Your task to perform on an android device: turn off location history Image 0: 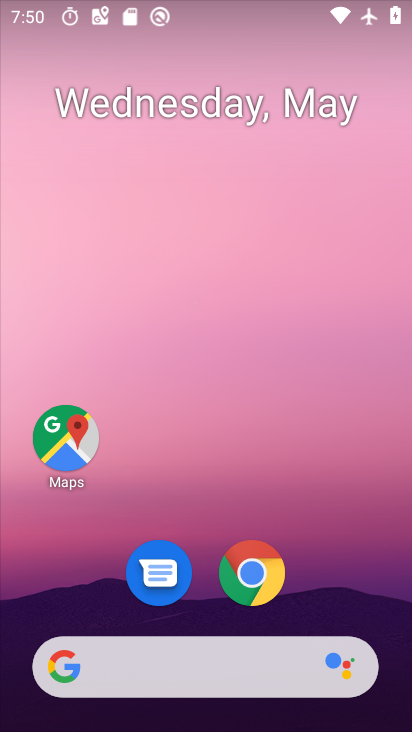
Step 0: drag from (307, 594) to (273, 35)
Your task to perform on an android device: turn off location history Image 1: 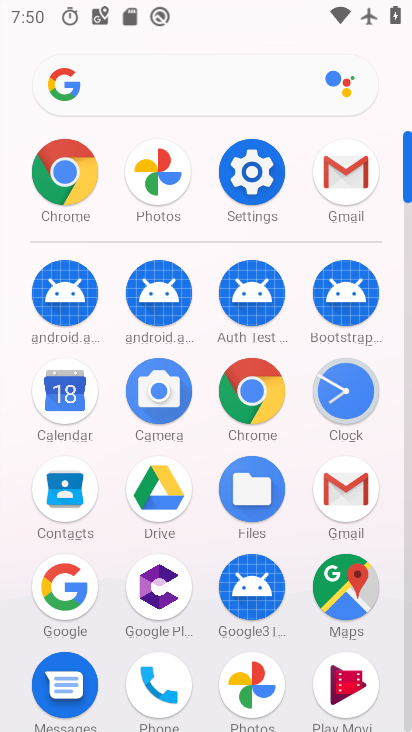
Step 1: click (240, 172)
Your task to perform on an android device: turn off location history Image 2: 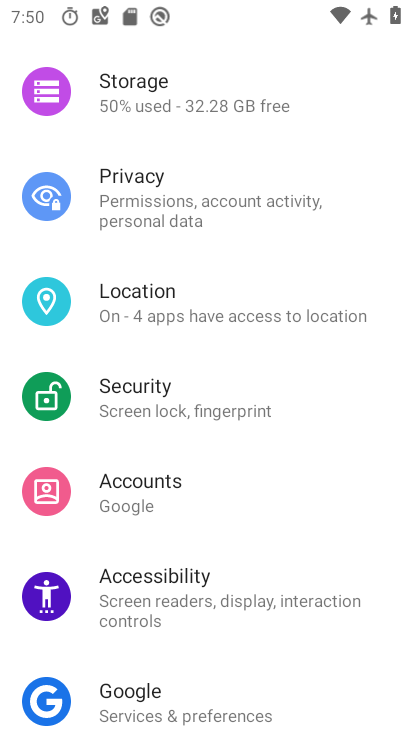
Step 2: click (144, 317)
Your task to perform on an android device: turn off location history Image 3: 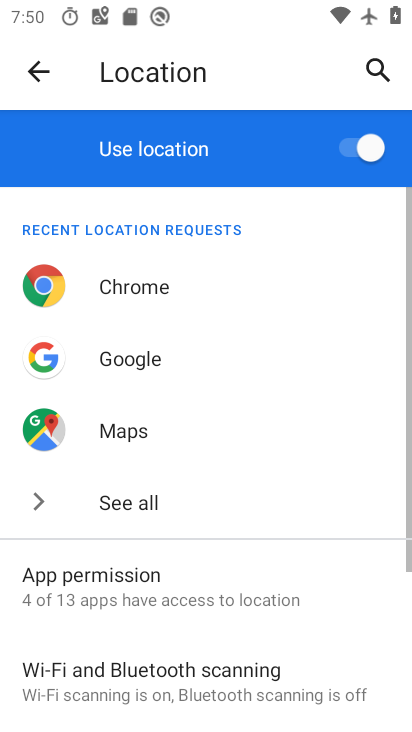
Step 3: drag from (221, 599) to (246, 296)
Your task to perform on an android device: turn off location history Image 4: 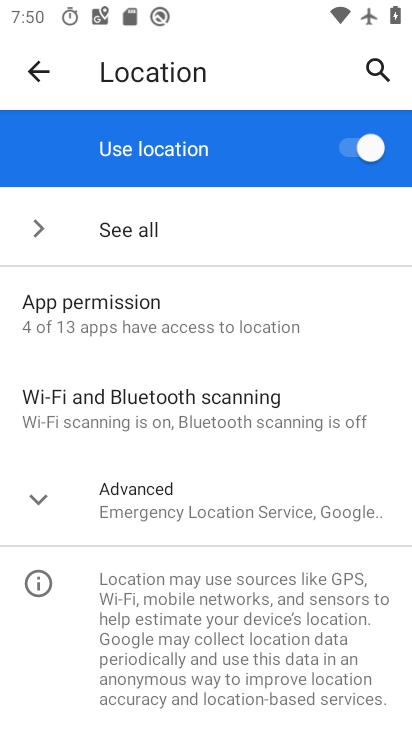
Step 4: click (190, 508)
Your task to perform on an android device: turn off location history Image 5: 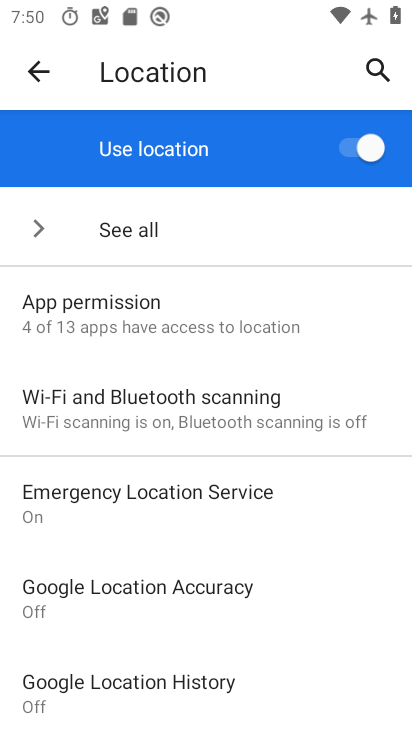
Step 5: click (192, 701)
Your task to perform on an android device: turn off location history Image 6: 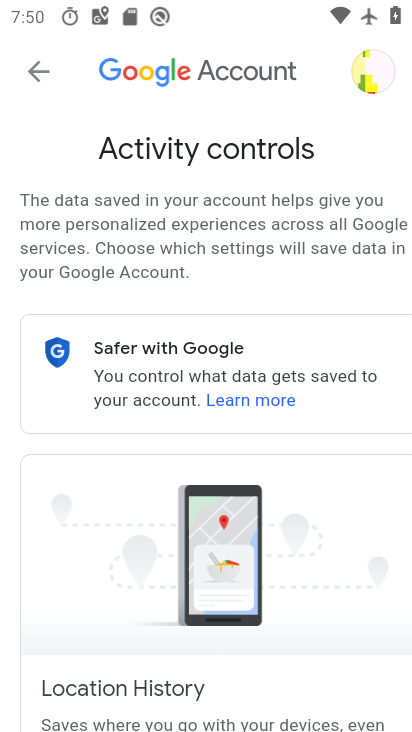
Step 6: drag from (254, 634) to (220, 119)
Your task to perform on an android device: turn off location history Image 7: 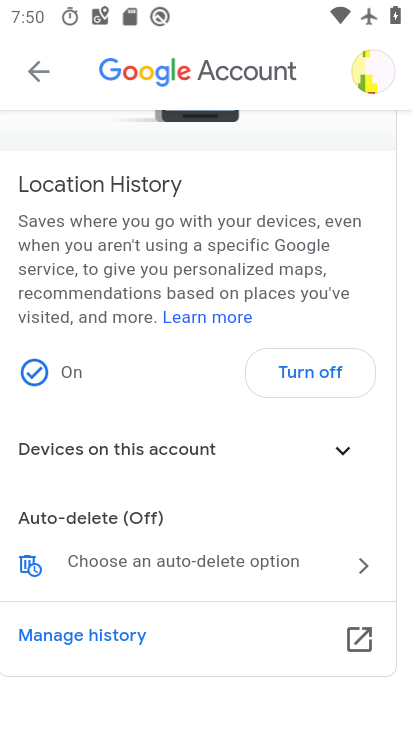
Step 7: click (305, 367)
Your task to perform on an android device: turn off location history Image 8: 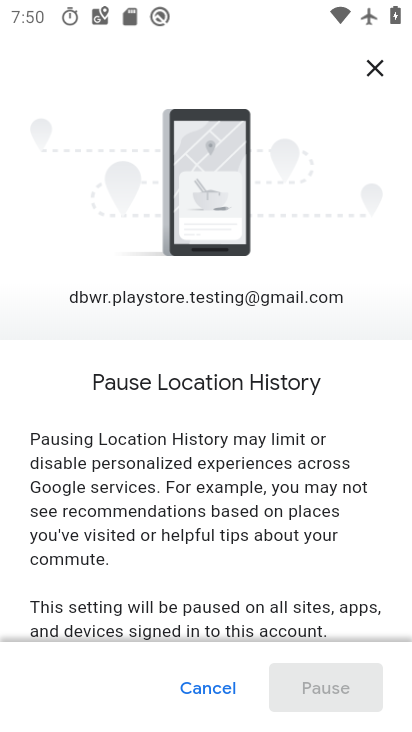
Step 8: drag from (296, 535) to (288, 104)
Your task to perform on an android device: turn off location history Image 9: 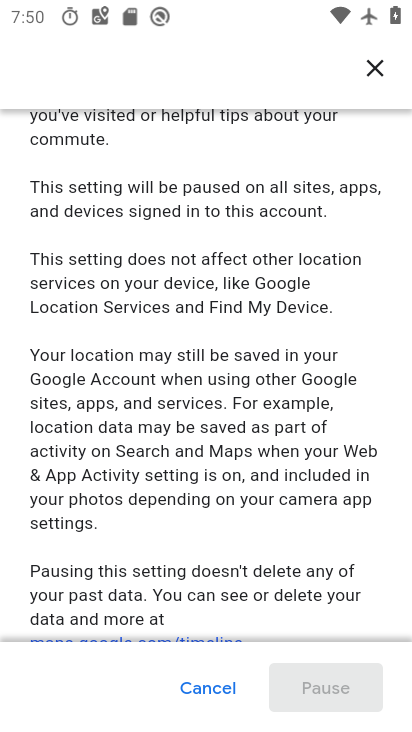
Step 9: drag from (335, 518) to (286, 204)
Your task to perform on an android device: turn off location history Image 10: 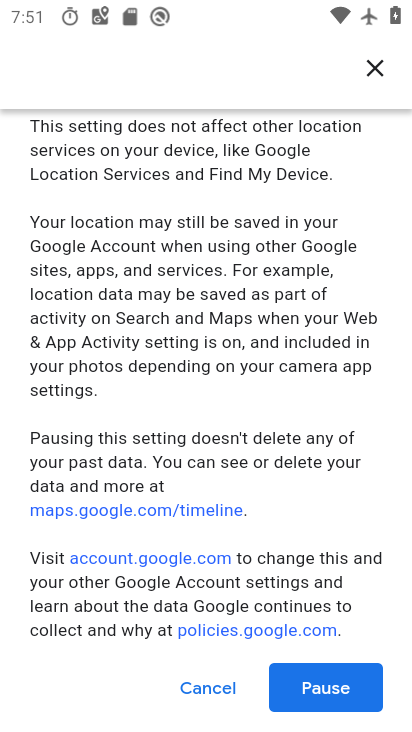
Step 10: click (318, 677)
Your task to perform on an android device: turn off location history Image 11: 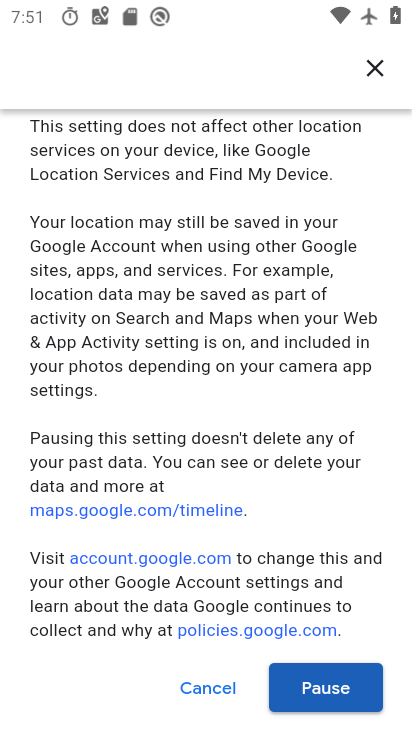
Step 11: click (322, 682)
Your task to perform on an android device: turn off location history Image 12: 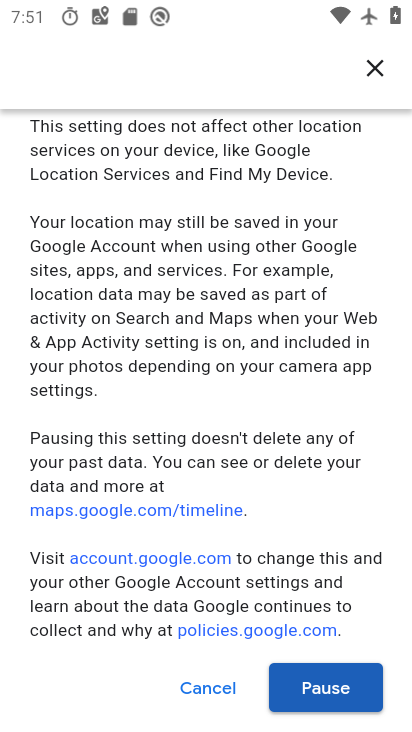
Step 12: click (329, 691)
Your task to perform on an android device: turn off location history Image 13: 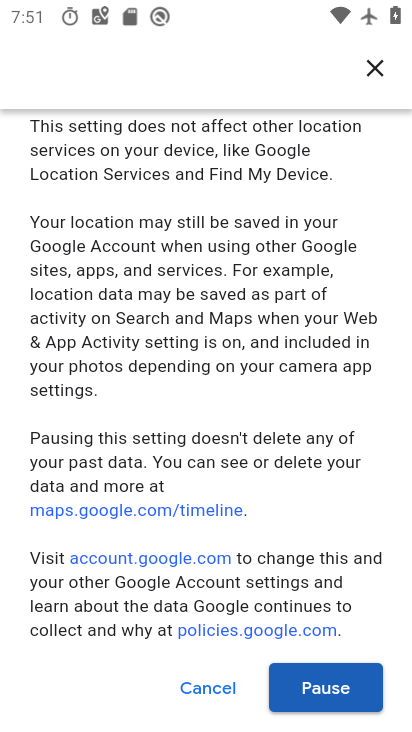
Step 13: click (329, 691)
Your task to perform on an android device: turn off location history Image 14: 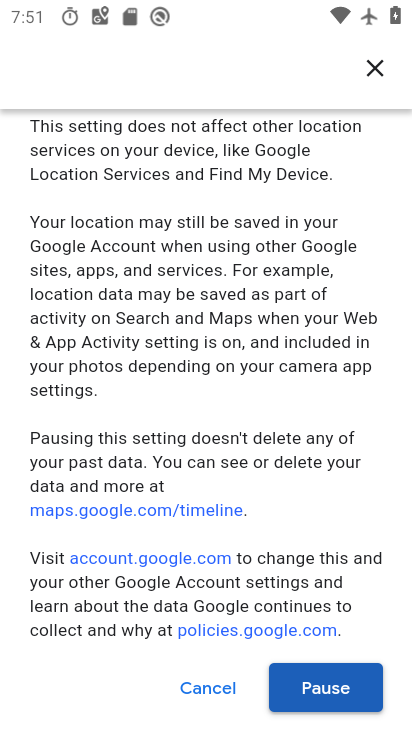
Step 14: click (343, 689)
Your task to perform on an android device: turn off location history Image 15: 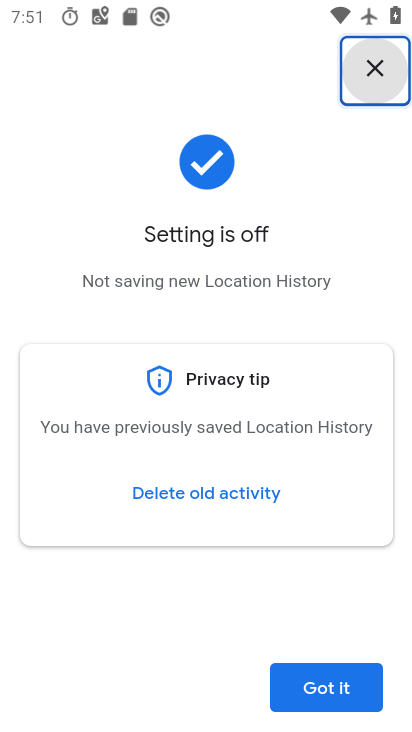
Step 15: task complete